Your task to perform on an android device: Add duracell triple a to the cart on newegg.com Image 0: 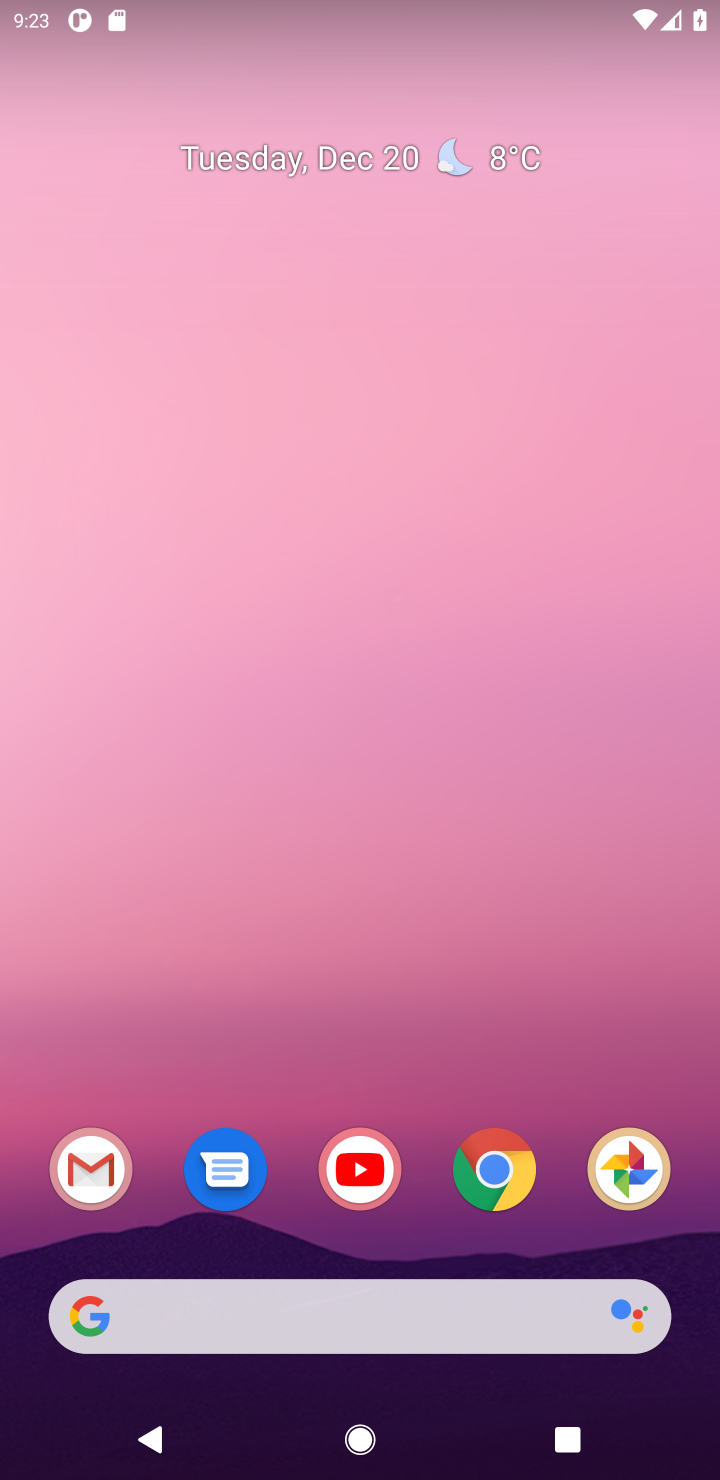
Step 0: click (492, 1148)
Your task to perform on an android device: Add duracell triple a to the cart on newegg.com Image 1: 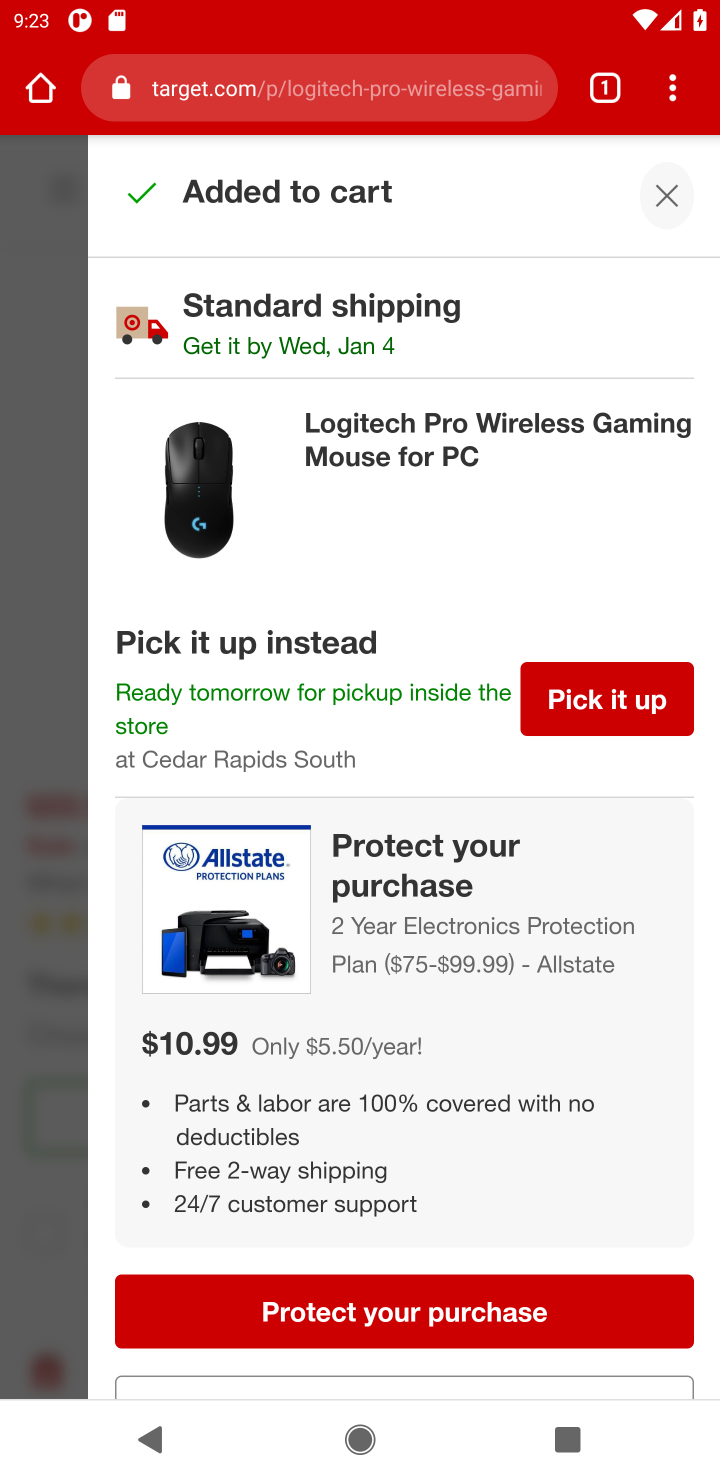
Step 1: click (363, 75)
Your task to perform on an android device: Add duracell triple a to the cart on newegg.com Image 2: 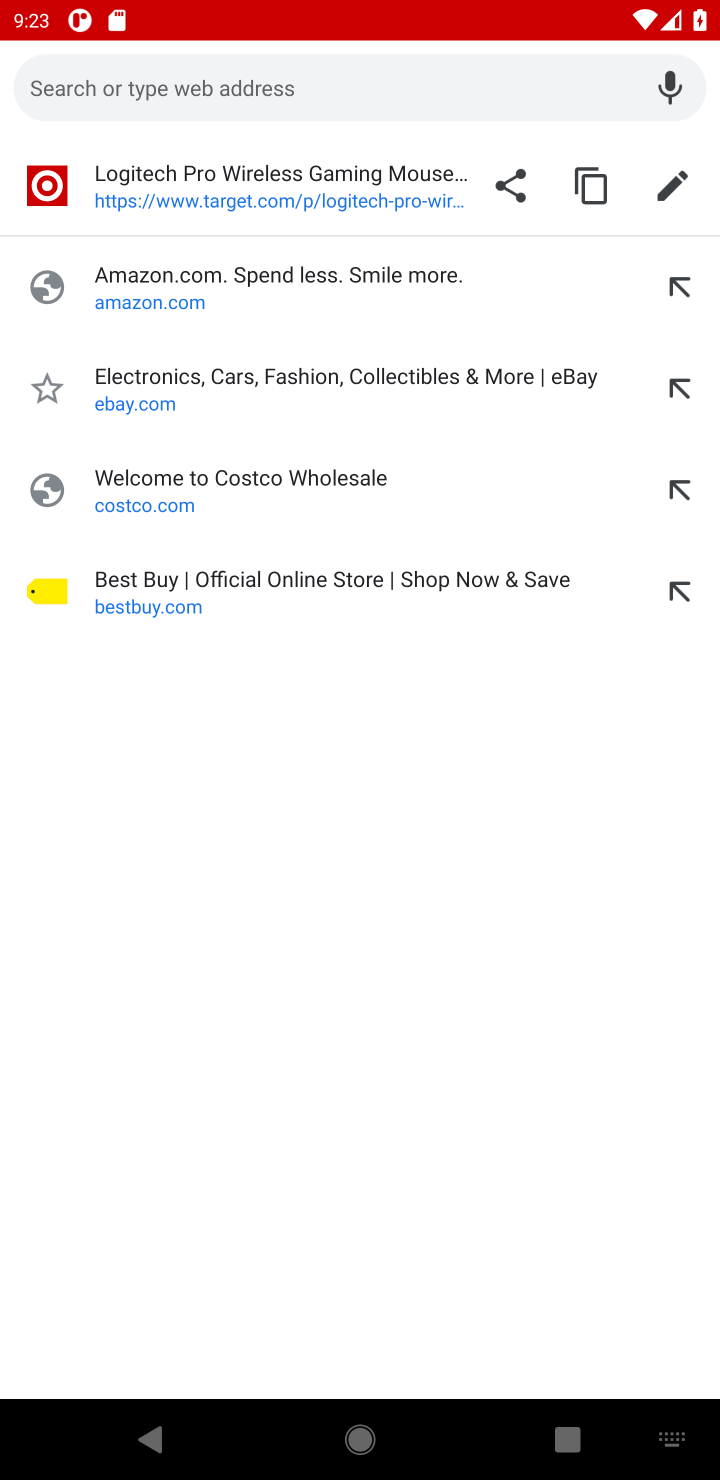
Step 2: type "newegg"
Your task to perform on an android device: Add duracell triple a to the cart on newegg.com Image 3: 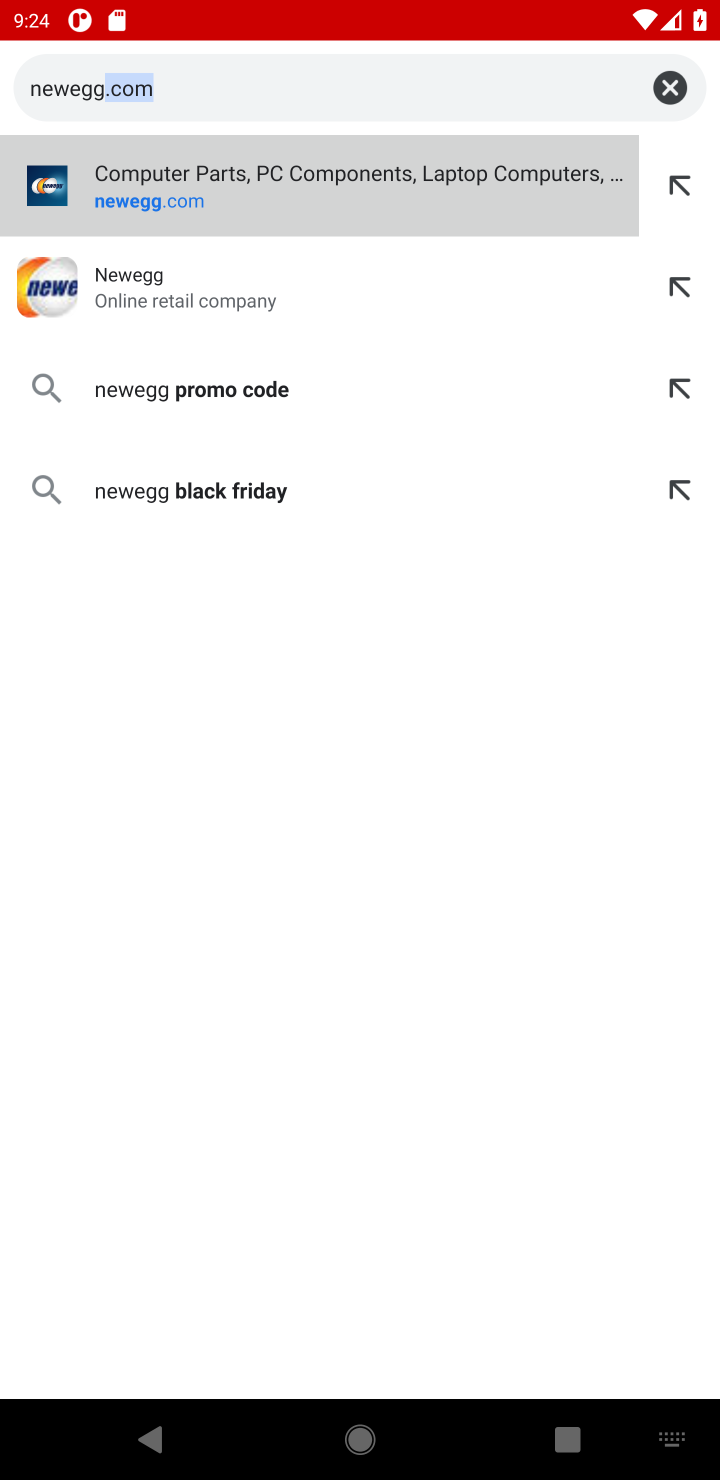
Step 3: click (252, 190)
Your task to perform on an android device: Add duracell triple a to the cart on newegg.com Image 4: 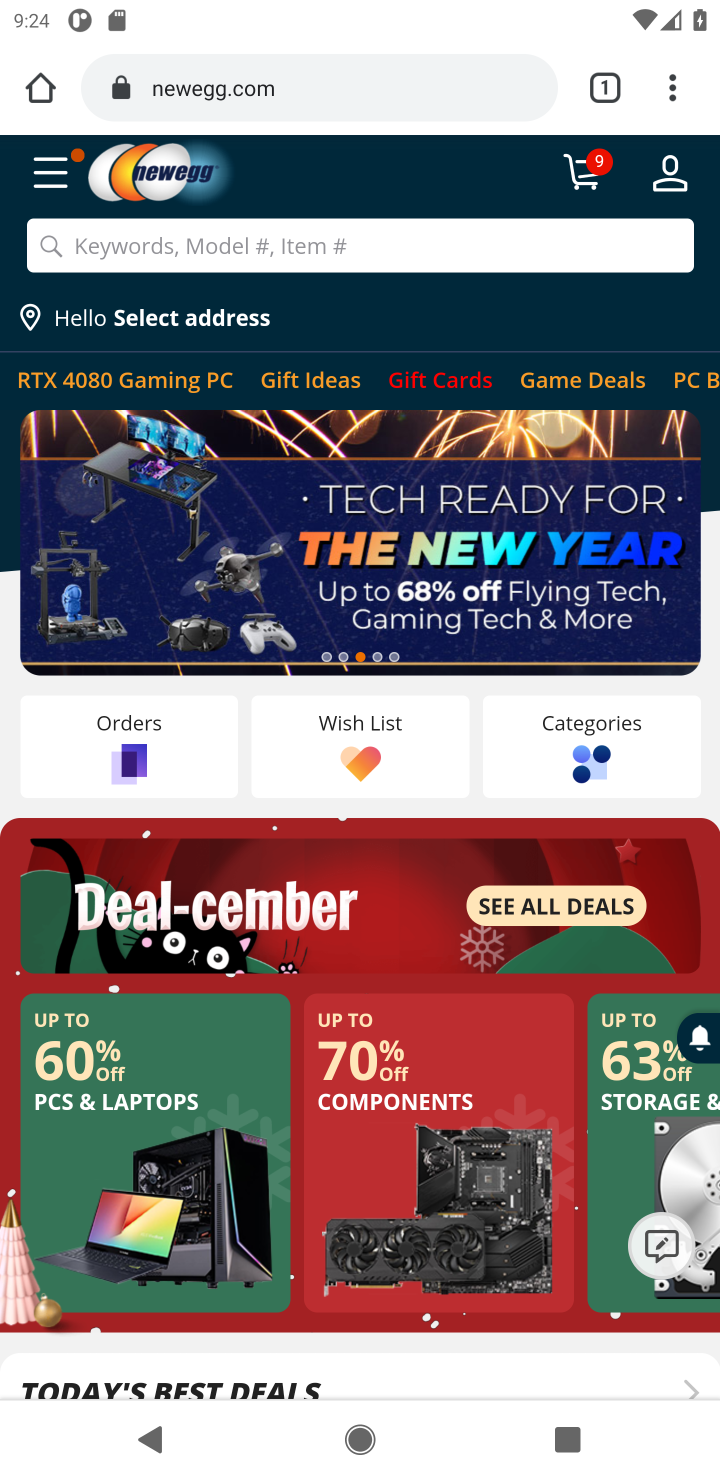
Step 4: click (562, 226)
Your task to perform on an android device: Add duracell triple a to the cart on newegg.com Image 5: 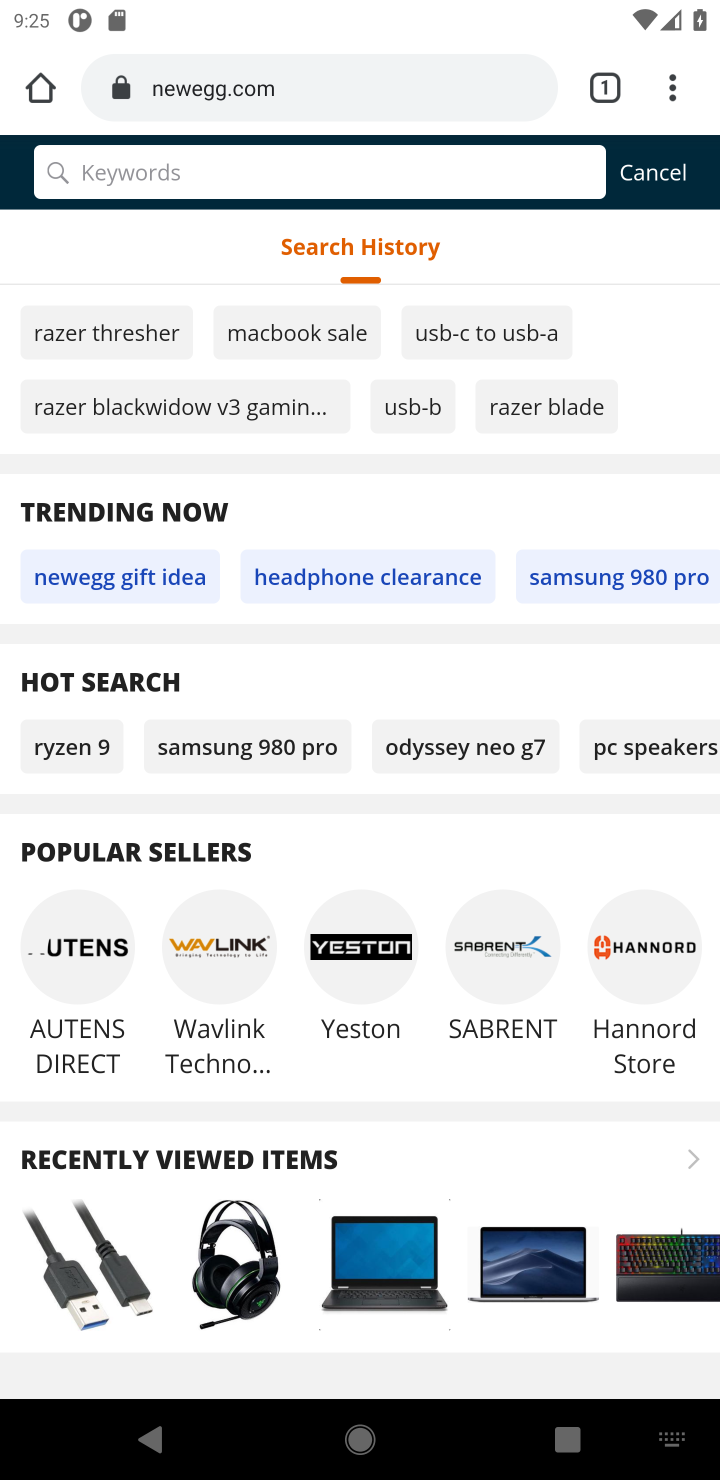
Step 5: type "duracell triple a"
Your task to perform on an android device: Add duracell triple a to the cart on newegg.com Image 6: 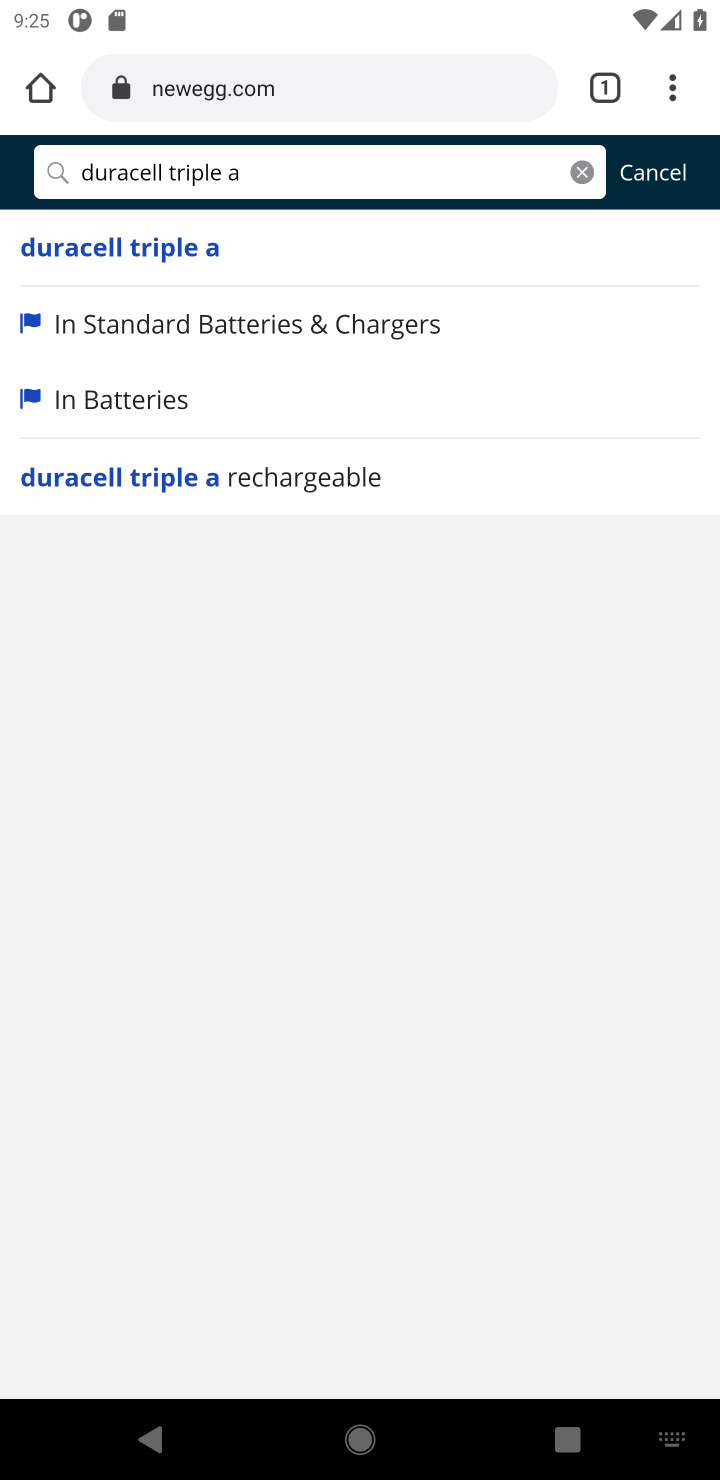
Step 6: click (211, 244)
Your task to perform on an android device: Add duracell triple a to the cart on newegg.com Image 7: 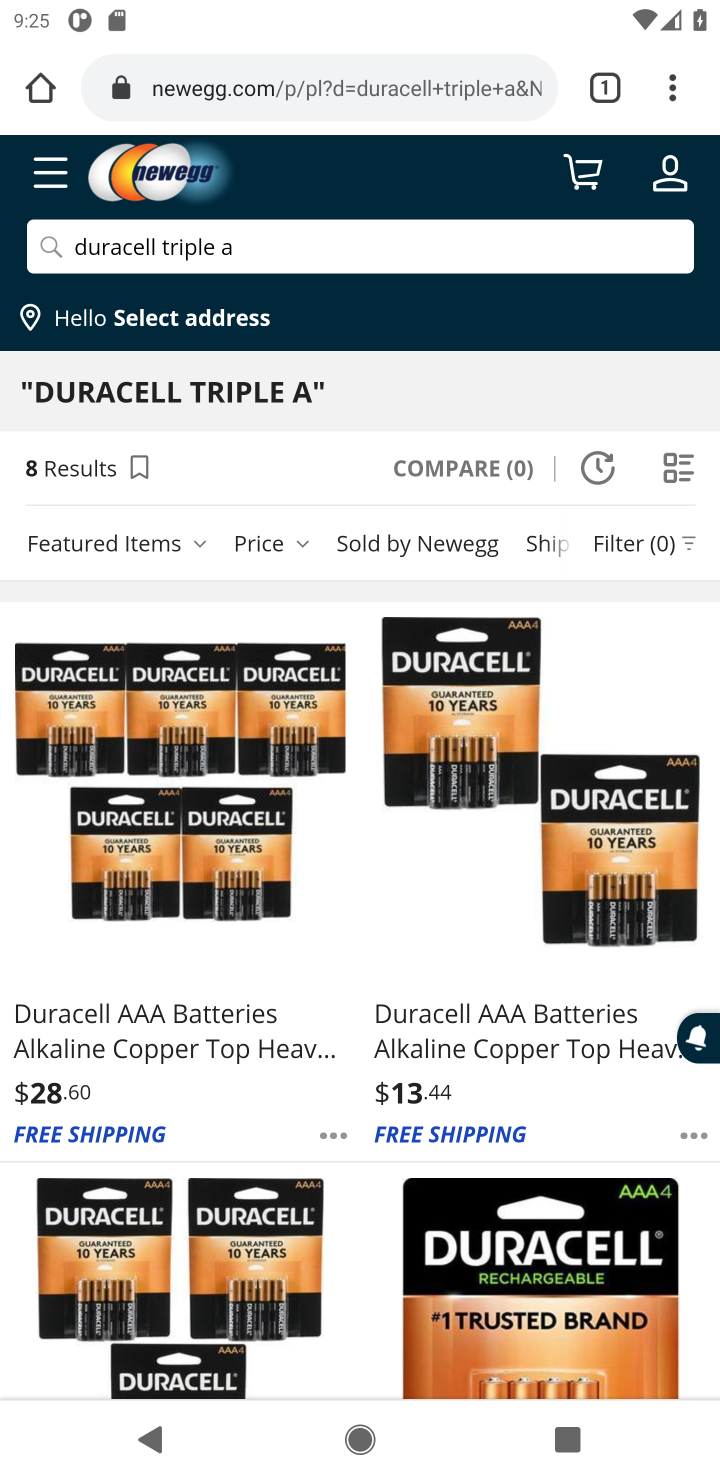
Step 7: click (97, 832)
Your task to perform on an android device: Add duracell triple a to the cart on newegg.com Image 8: 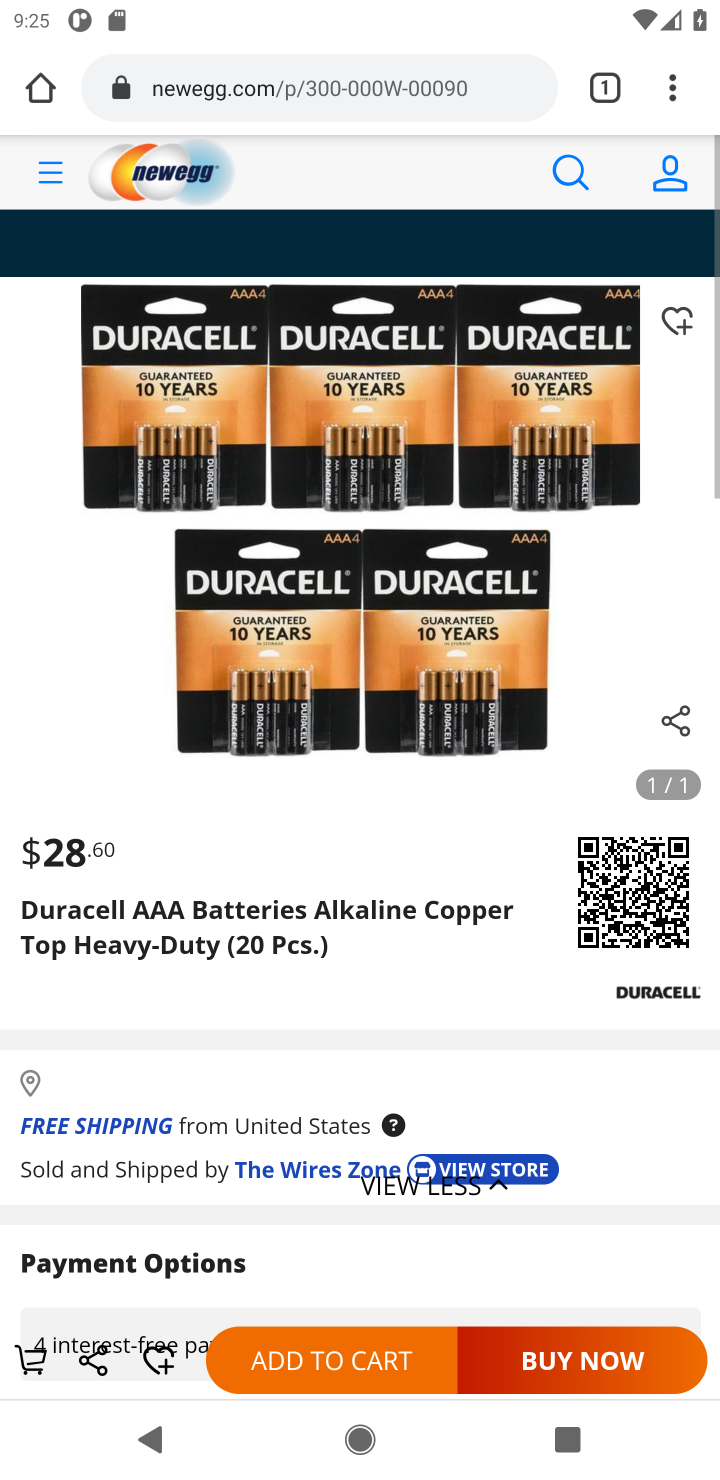
Step 8: click (364, 1366)
Your task to perform on an android device: Add duracell triple a to the cart on newegg.com Image 9: 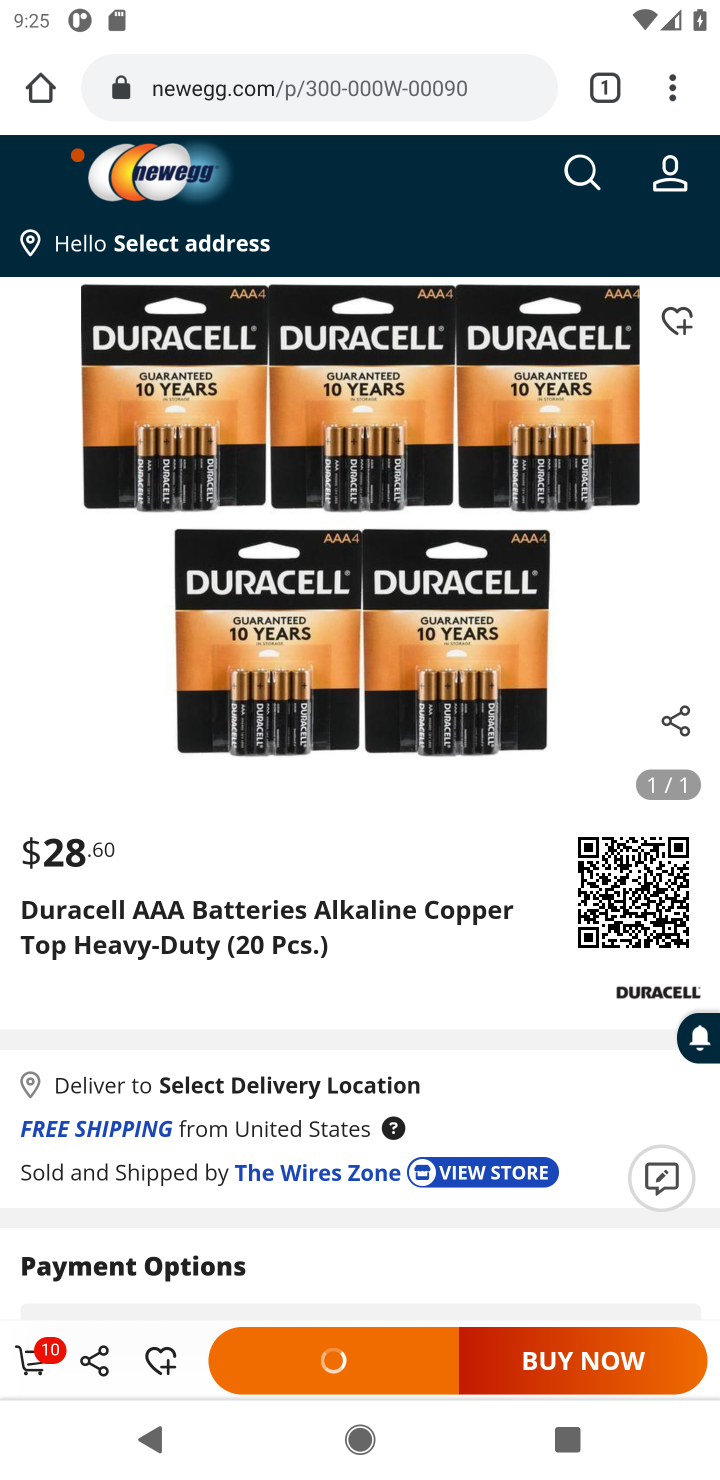
Step 9: click (362, 1353)
Your task to perform on an android device: Add duracell triple a to the cart on newegg.com Image 10: 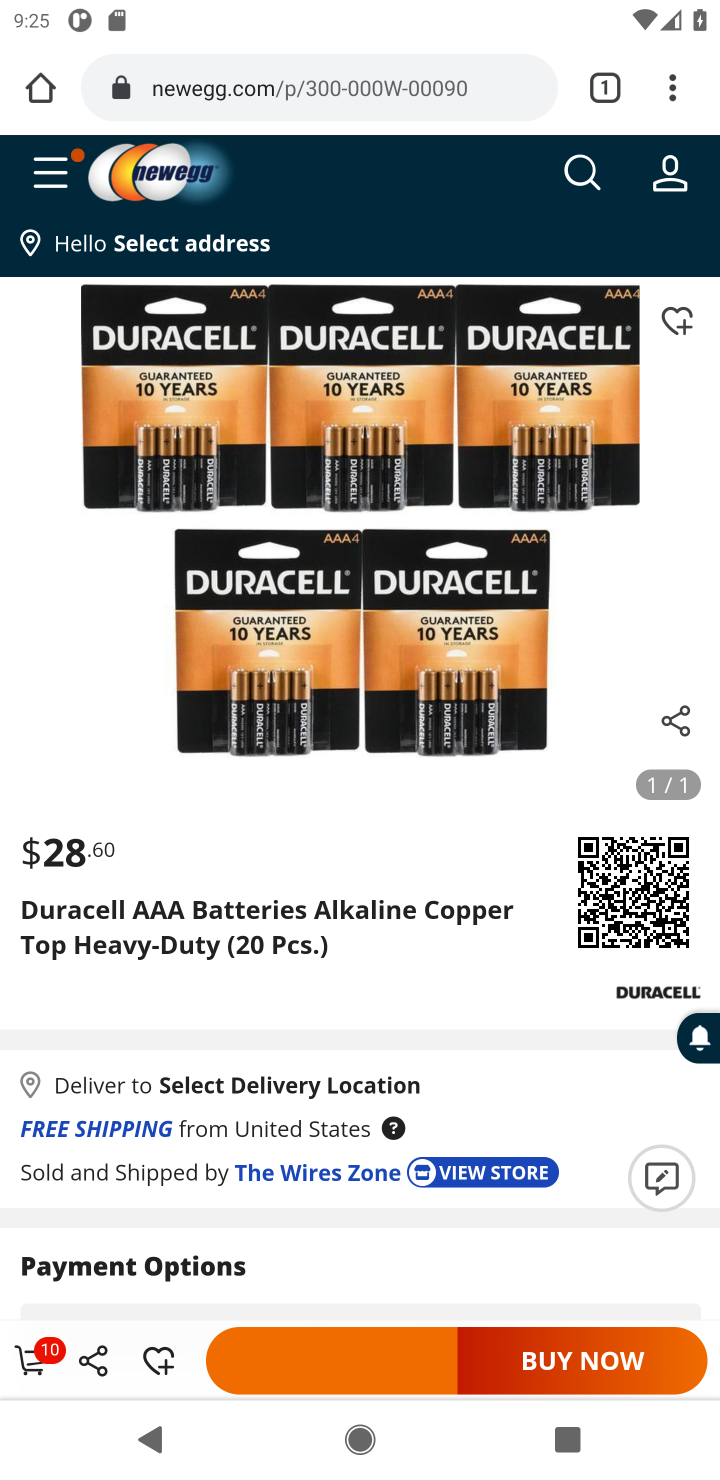
Step 10: task complete